Your task to perform on an android device: Open Reddit.com Image 0: 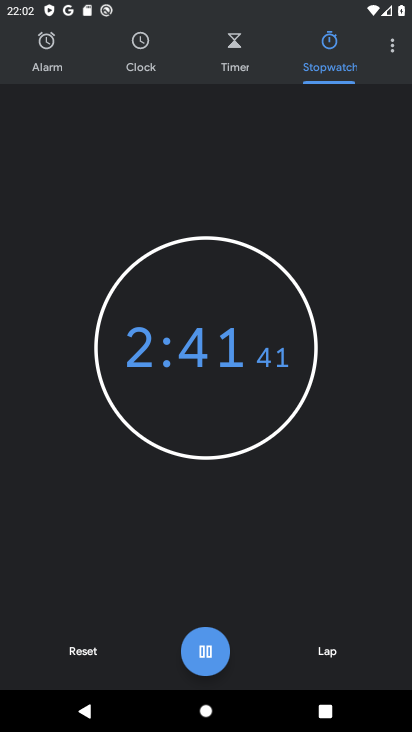
Step 0: press home button
Your task to perform on an android device: Open Reddit.com Image 1: 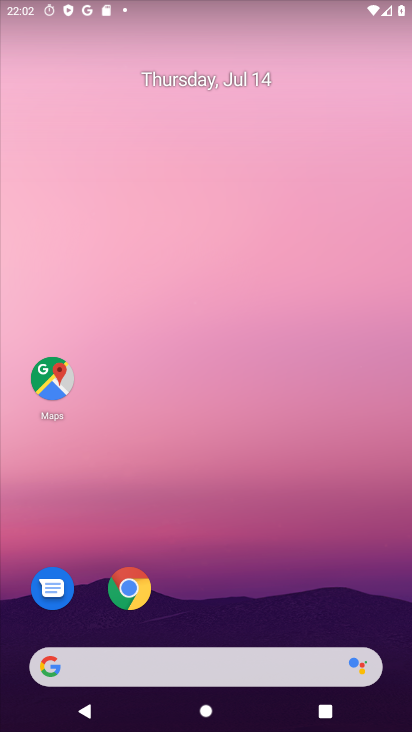
Step 1: drag from (195, 604) to (239, 112)
Your task to perform on an android device: Open Reddit.com Image 2: 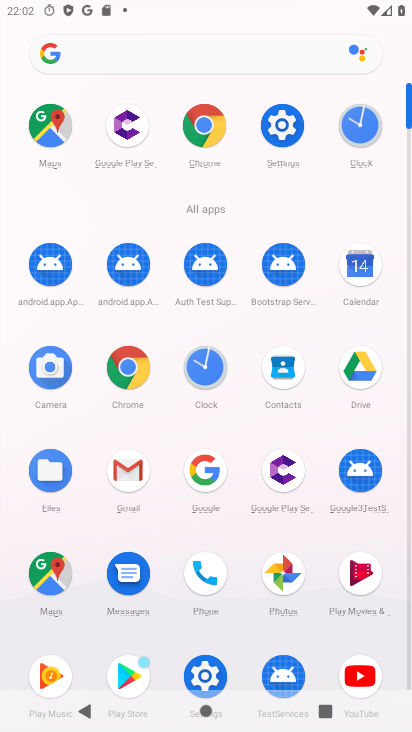
Step 2: click (195, 467)
Your task to perform on an android device: Open Reddit.com Image 3: 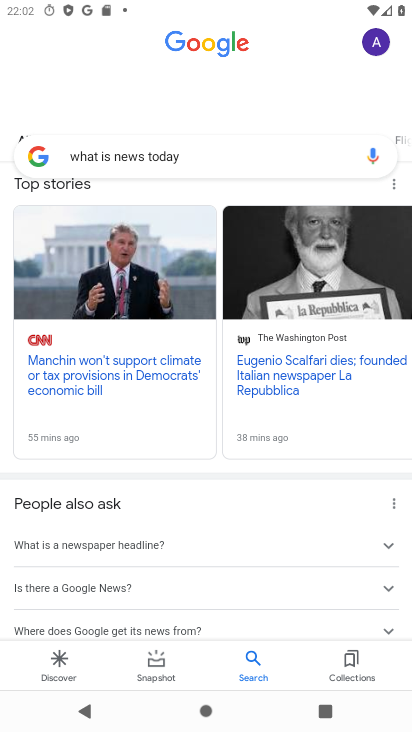
Step 3: click (192, 161)
Your task to perform on an android device: Open Reddit.com Image 4: 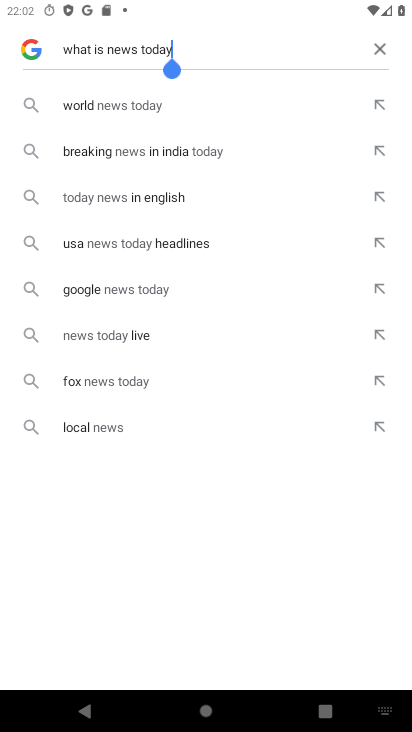
Step 4: click (375, 52)
Your task to perform on an android device: Open Reddit.com Image 5: 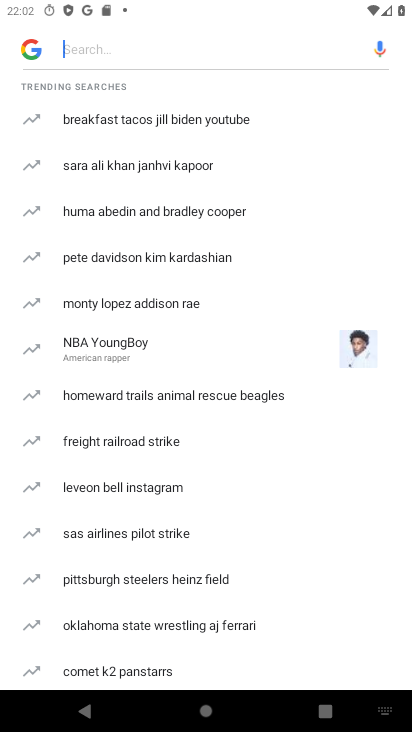
Step 5: type "reddit.com"
Your task to perform on an android device: Open Reddit.com Image 6: 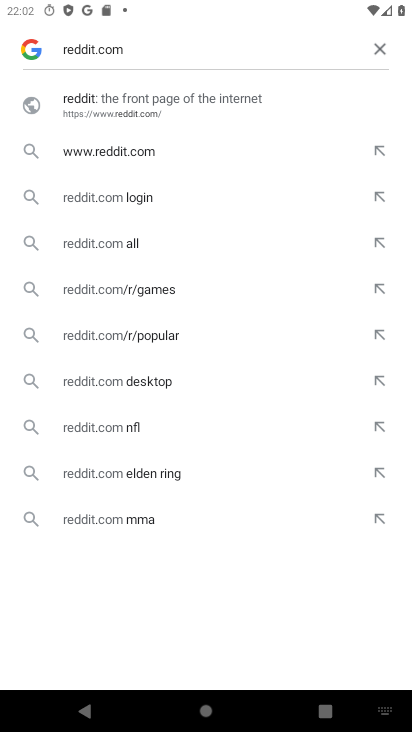
Step 6: click (120, 152)
Your task to perform on an android device: Open Reddit.com Image 7: 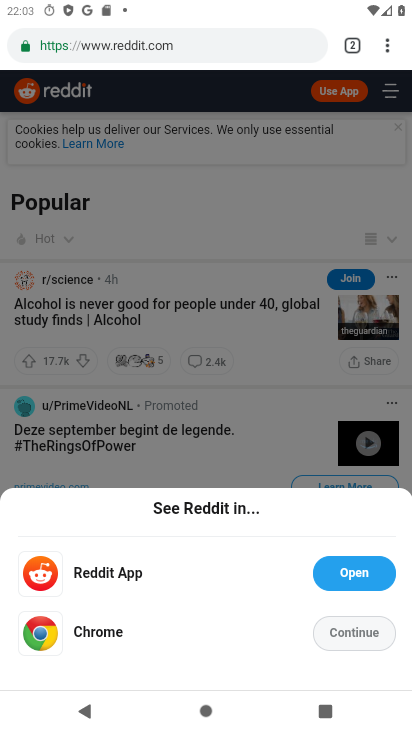
Step 7: task complete